Your task to perform on an android device: change timer sound Image 0: 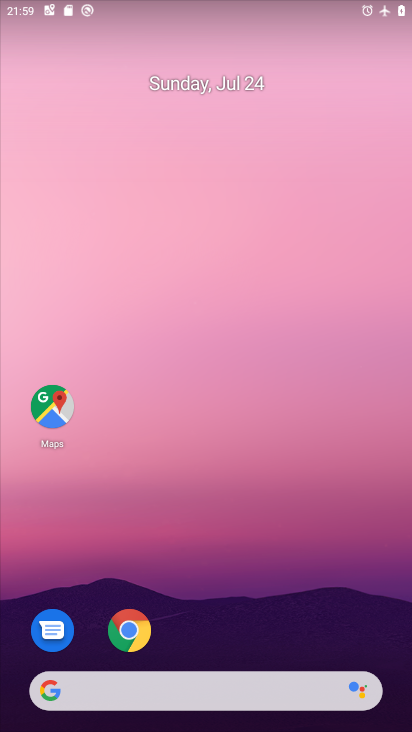
Step 0: drag from (217, 597) to (282, 0)
Your task to perform on an android device: change timer sound Image 1: 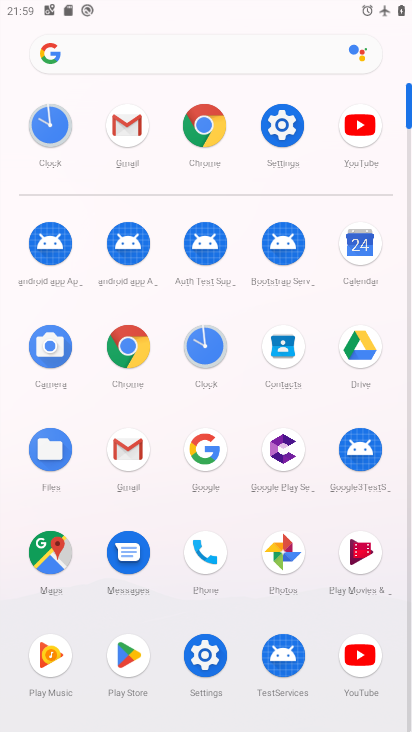
Step 1: click (281, 113)
Your task to perform on an android device: change timer sound Image 2: 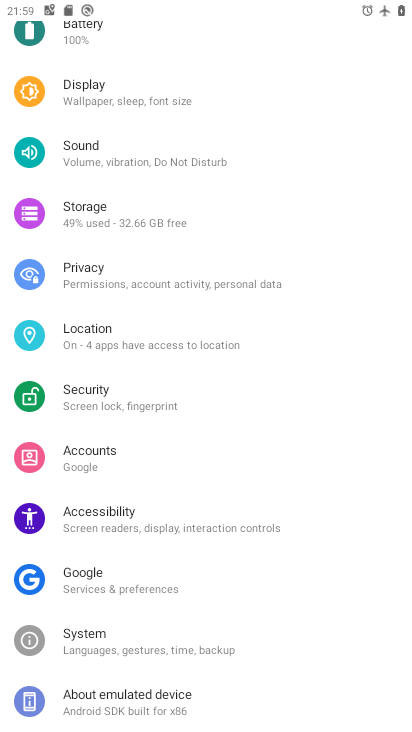
Step 2: press home button
Your task to perform on an android device: change timer sound Image 3: 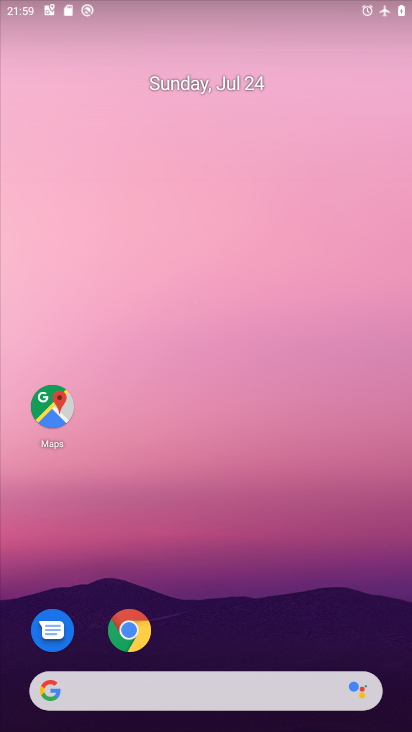
Step 3: drag from (223, 694) to (302, 28)
Your task to perform on an android device: change timer sound Image 4: 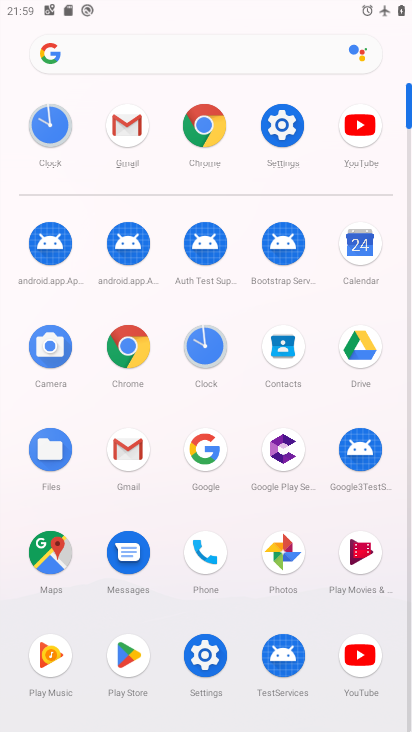
Step 4: click (191, 333)
Your task to perform on an android device: change timer sound Image 5: 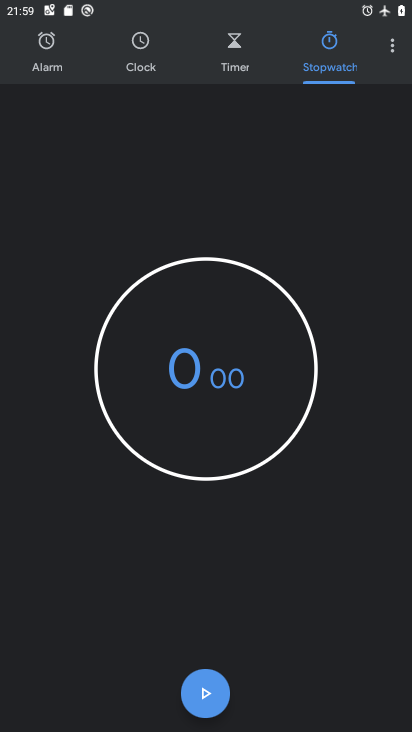
Step 5: click (399, 44)
Your task to perform on an android device: change timer sound Image 6: 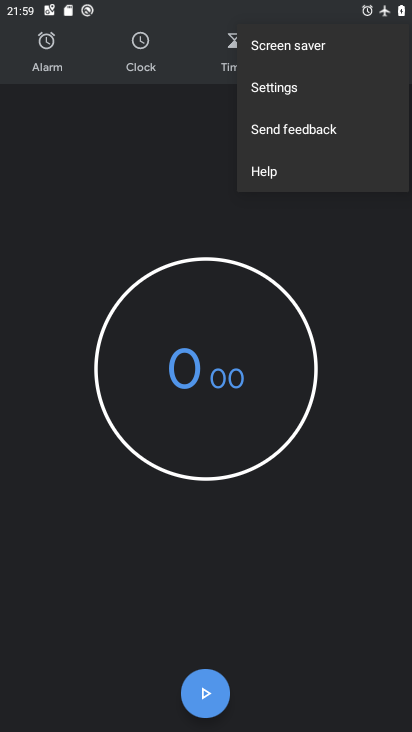
Step 6: click (290, 85)
Your task to perform on an android device: change timer sound Image 7: 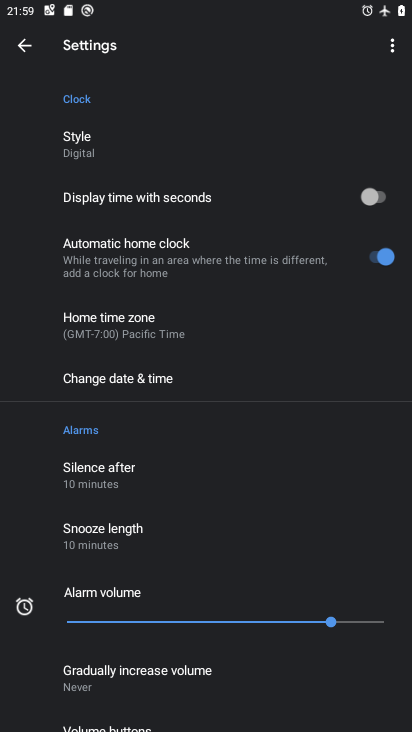
Step 7: drag from (188, 670) to (222, 257)
Your task to perform on an android device: change timer sound Image 8: 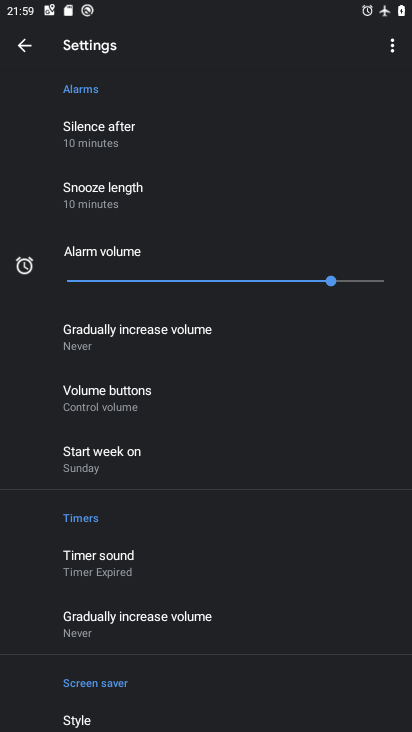
Step 8: click (113, 566)
Your task to perform on an android device: change timer sound Image 9: 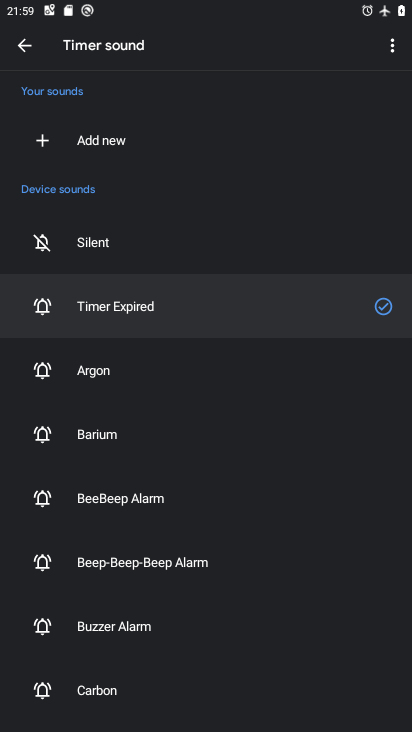
Step 9: click (135, 510)
Your task to perform on an android device: change timer sound Image 10: 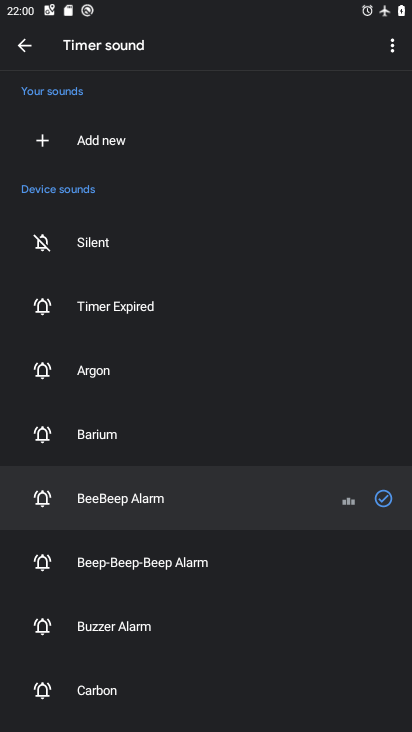
Step 10: task complete